Your task to perform on an android device: Open the stopwatch Image 0: 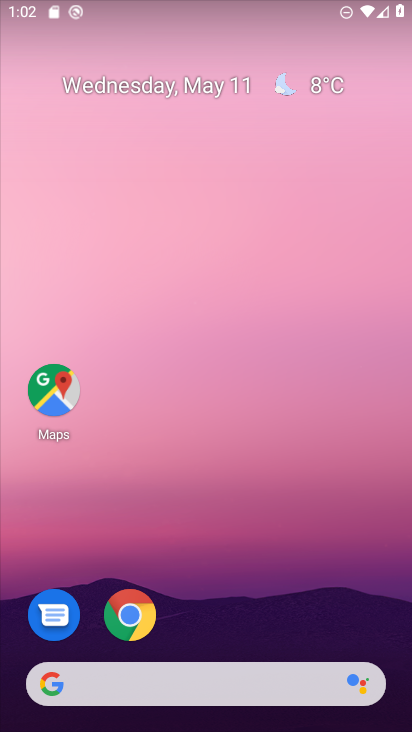
Step 0: click (219, 176)
Your task to perform on an android device: Open the stopwatch Image 1: 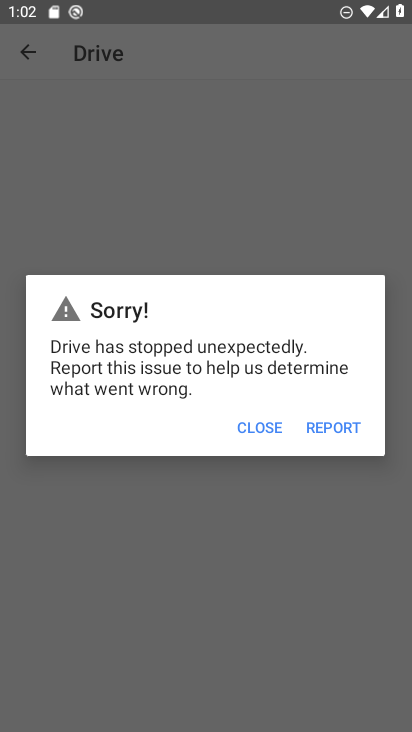
Step 1: press home button
Your task to perform on an android device: Open the stopwatch Image 2: 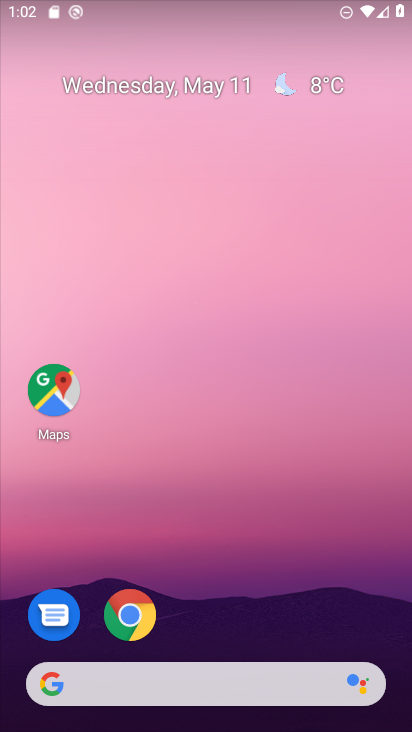
Step 2: drag from (312, 511) to (338, 248)
Your task to perform on an android device: Open the stopwatch Image 3: 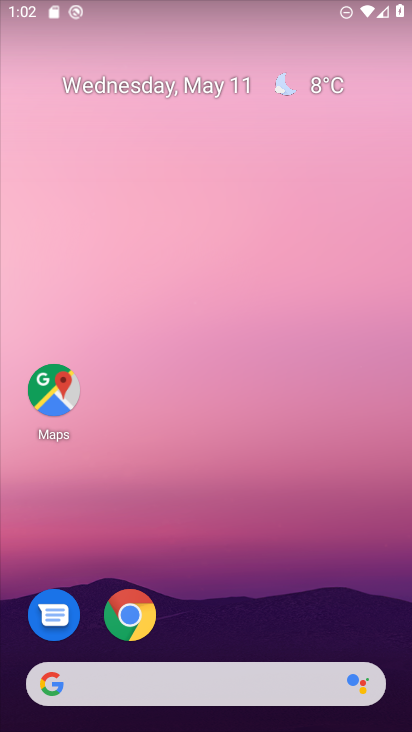
Step 3: drag from (280, 488) to (249, 81)
Your task to perform on an android device: Open the stopwatch Image 4: 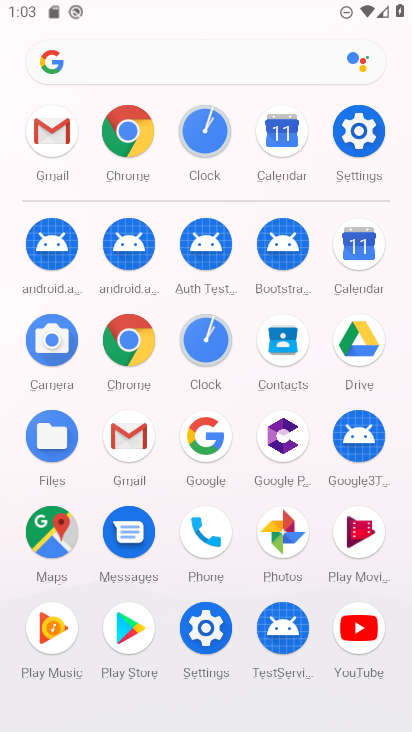
Step 4: click (207, 340)
Your task to perform on an android device: Open the stopwatch Image 5: 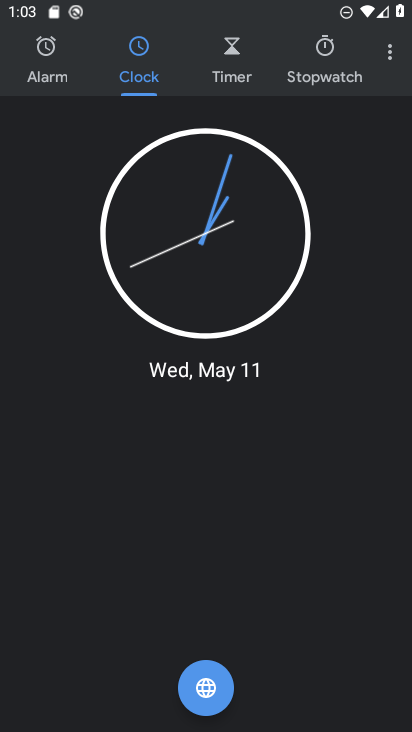
Step 5: click (324, 64)
Your task to perform on an android device: Open the stopwatch Image 6: 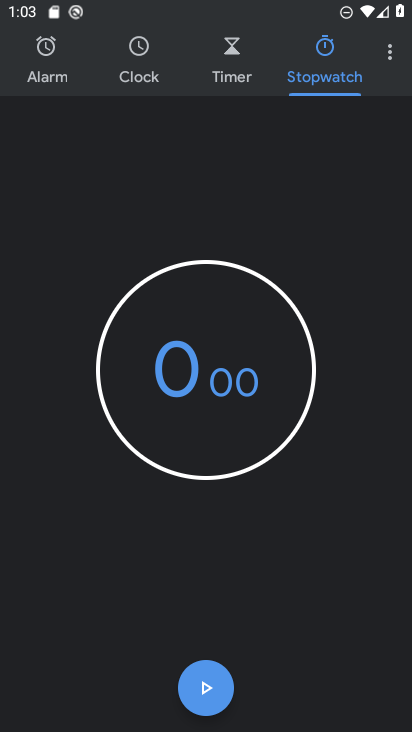
Step 6: task complete